Your task to perform on an android device: Go to notification settings Image 0: 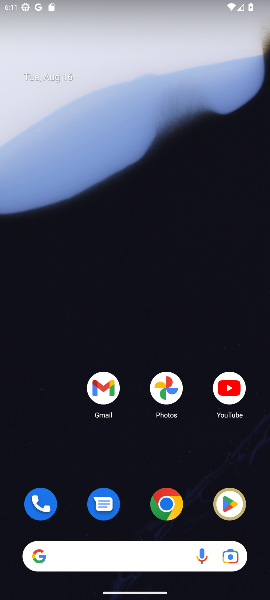
Step 0: drag from (21, 580) to (187, 316)
Your task to perform on an android device: Go to notification settings Image 1: 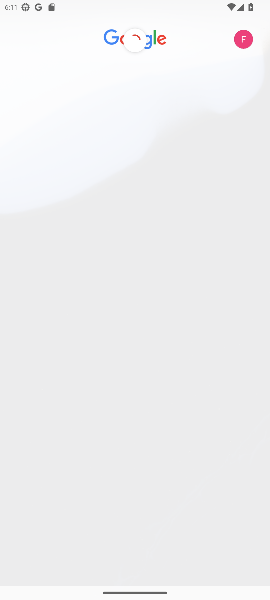
Step 1: press home button
Your task to perform on an android device: Go to notification settings Image 2: 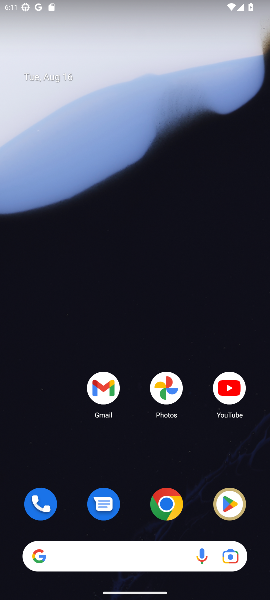
Step 2: drag from (18, 586) to (134, 252)
Your task to perform on an android device: Go to notification settings Image 3: 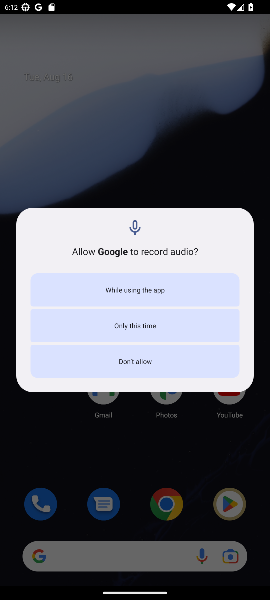
Step 3: press home button
Your task to perform on an android device: Go to notification settings Image 4: 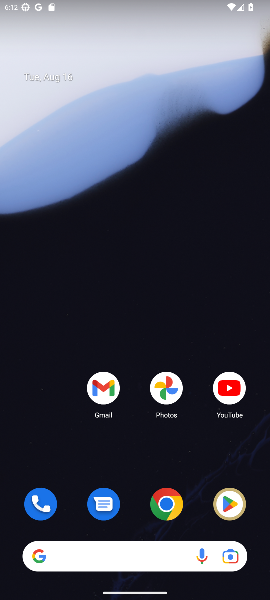
Step 4: drag from (17, 581) to (244, 95)
Your task to perform on an android device: Go to notification settings Image 5: 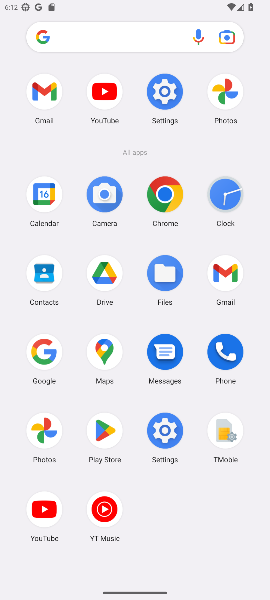
Step 5: click (174, 445)
Your task to perform on an android device: Go to notification settings Image 6: 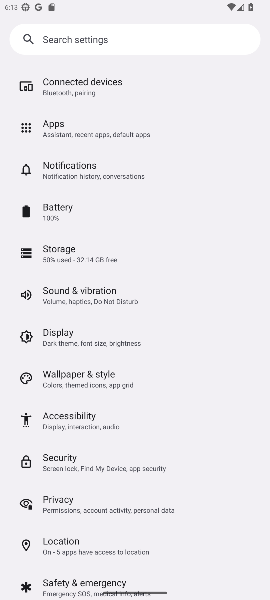
Step 6: click (71, 173)
Your task to perform on an android device: Go to notification settings Image 7: 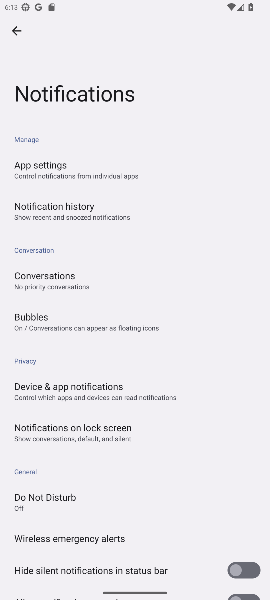
Step 7: task complete